Your task to perform on an android device: Open calendar and show me the fourth week of next month Image 0: 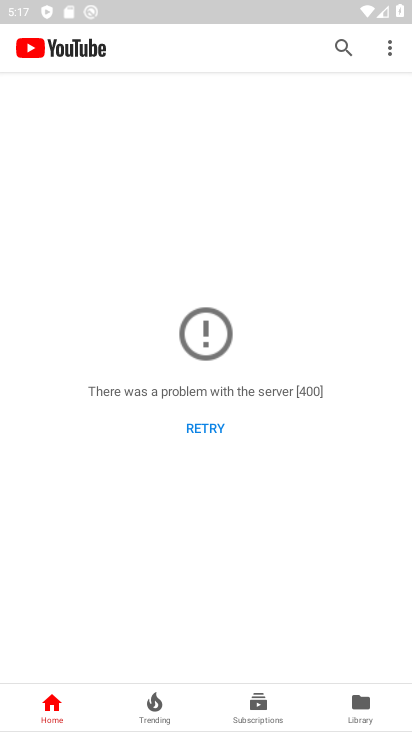
Step 0: press home button
Your task to perform on an android device: Open calendar and show me the fourth week of next month Image 1: 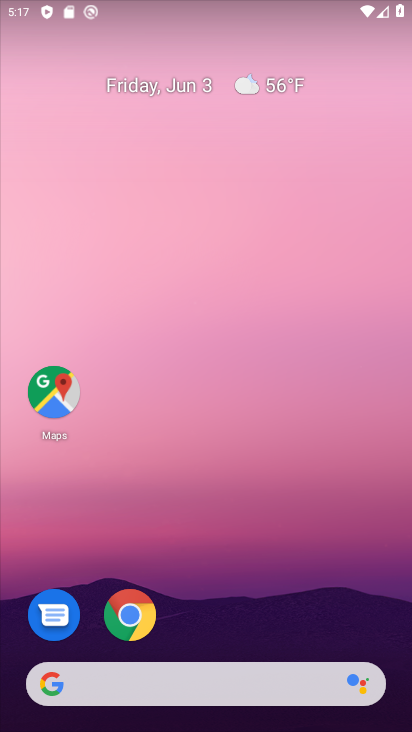
Step 1: drag from (282, 603) to (210, 90)
Your task to perform on an android device: Open calendar and show me the fourth week of next month Image 2: 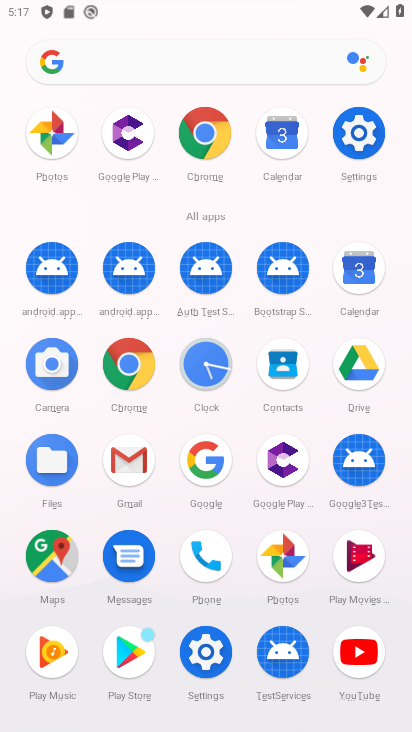
Step 2: click (283, 139)
Your task to perform on an android device: Open calendar and show me the fourth week of next month Image 3: 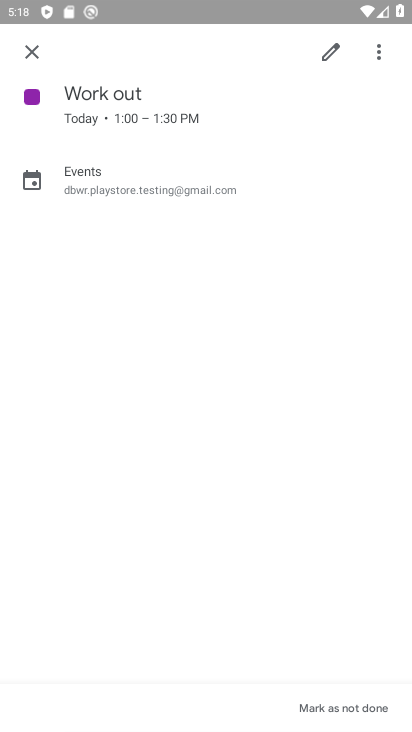
Step 3: click (31, 53)
Your task to perform on an android device: Open calendar and show me the fourth week of next month Image 4: 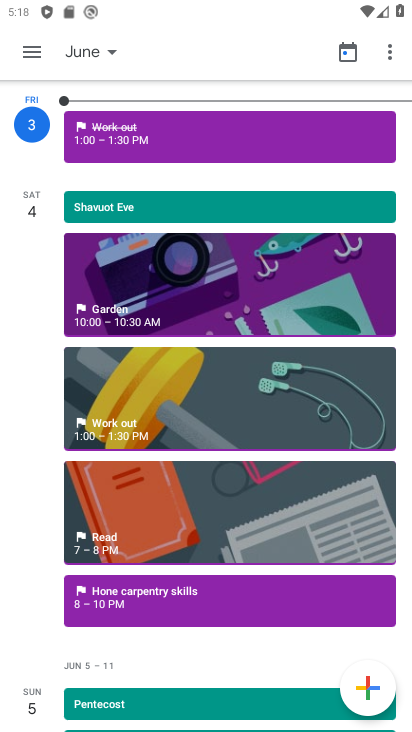
Step 4: click (110, 52)
Your task to perform on an android device: Open calendar and show me the fourth week of next month Image 5: 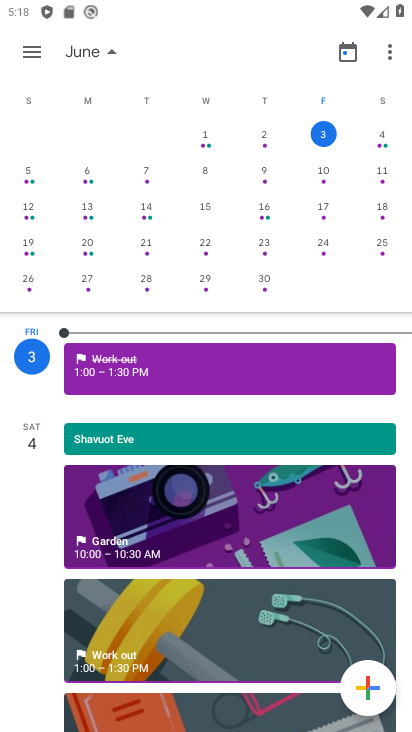
Step 5: drag from (370, 197) to (0, 248)
Your task to perform on an android device: Open calendar and show me the fourth week of next month Image 6: 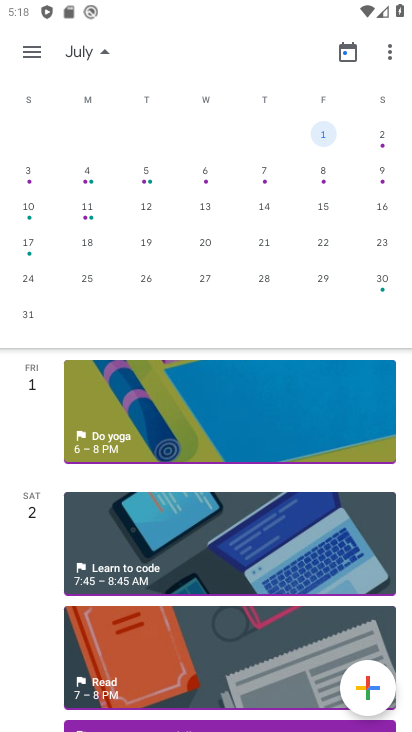
Step 6: click (88, 279)
Your task to perform on an android device: Open calendar and show me the fourth week of next month Image 7: 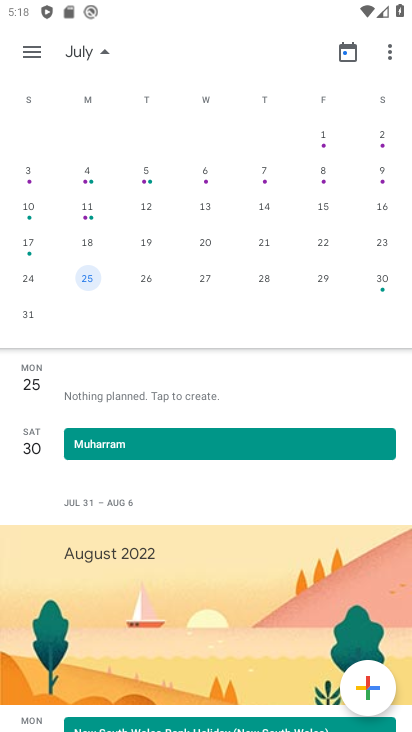
Step 7: click (33, 46)
Your task to perform on an android device: Open calendar and show me the fourth week of next month Image 8: 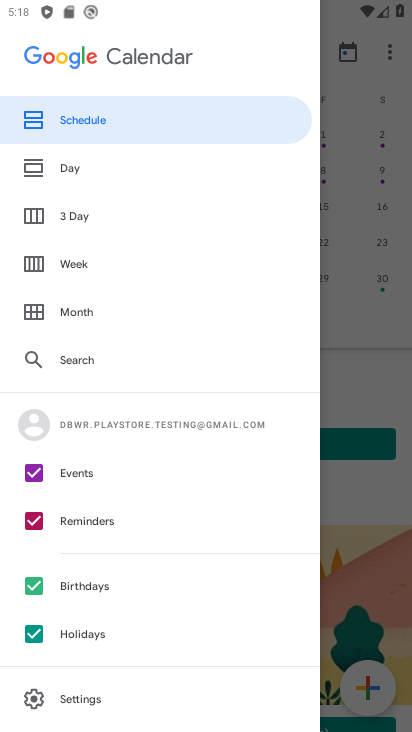
Step 8: click (68, 262)
Your task to perform on an android device: Open calendar and show me the fourth week of next month Image 9: 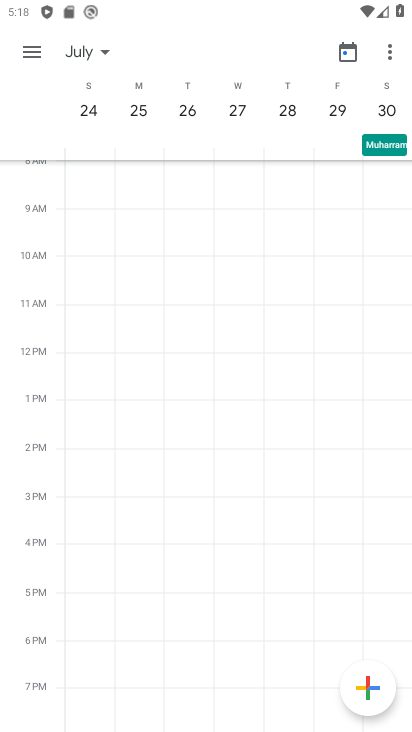
Step 9: task complete